Your task to perform on an android device: turn pop-ups on in chrome Image 0: 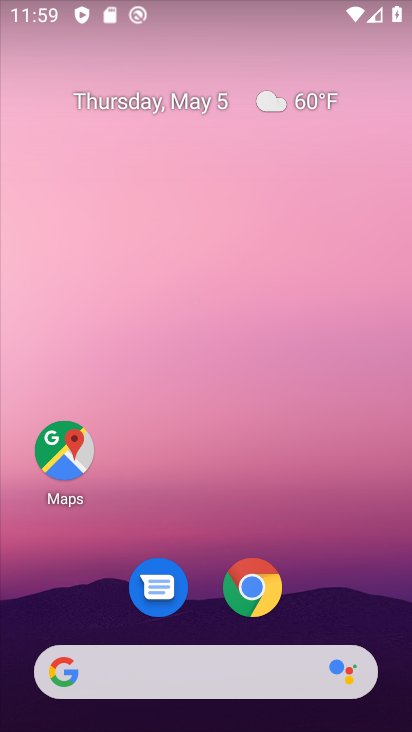
Step 0: click (263, 581)
Your task to perform on an android device: turn pop-ups on in chrome Image 1: 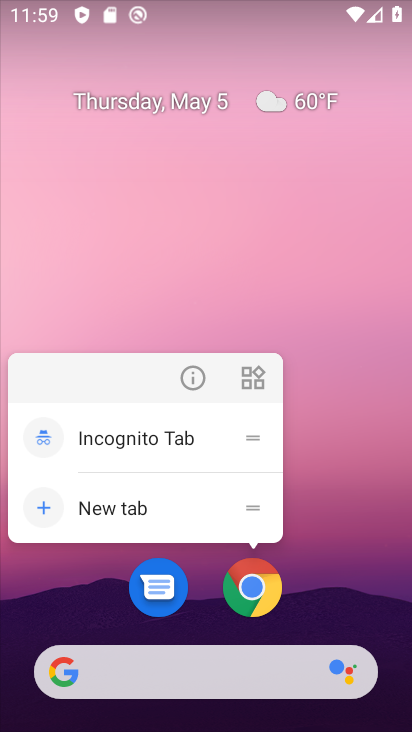
Step 1: click (247, 582)
Your task to perform on an android device: turn pop-ups on in chrome Image 2: 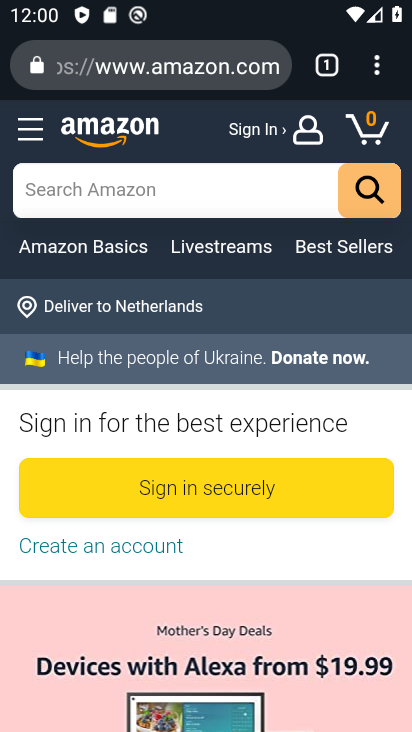
Step 2: click (367, 62)
Your task to perform on an android device: turn pop-ups on in chrome Image 3: 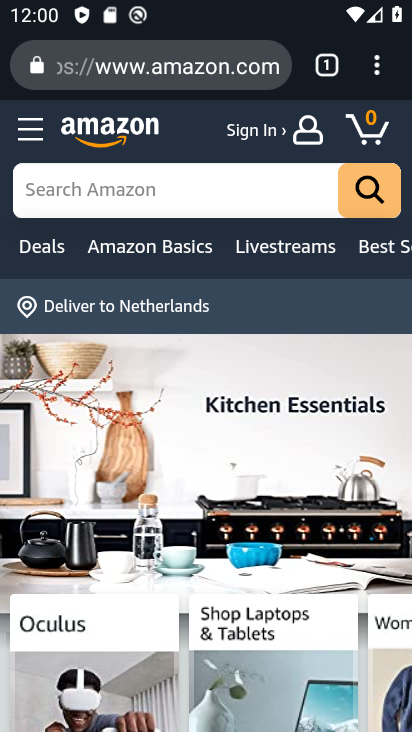
Step 3: click (373, 63)
Your task to perform on an android device: turn pop-ups on in chrome Image 4: 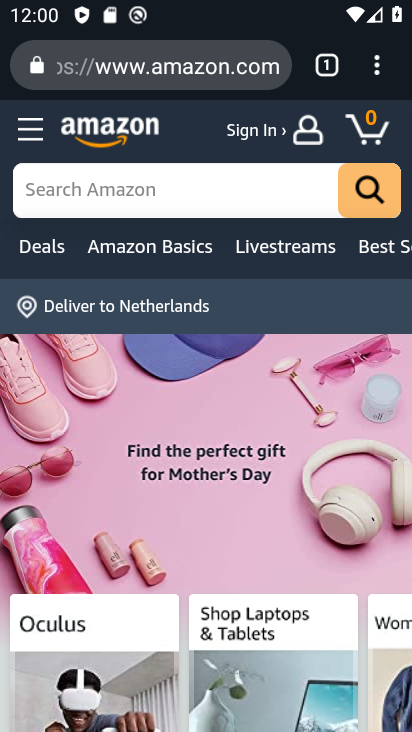
Step 4: click (376, 59)
Your task to perform on an android device: turn pop-ups on in chrome Image 5: 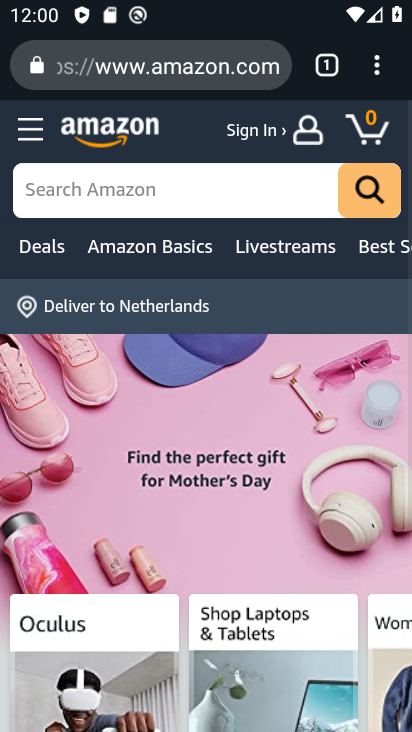
Step 5: click (376, 59)
Your task to perform on an android device: turn pop-ups on in chrome Image 6: 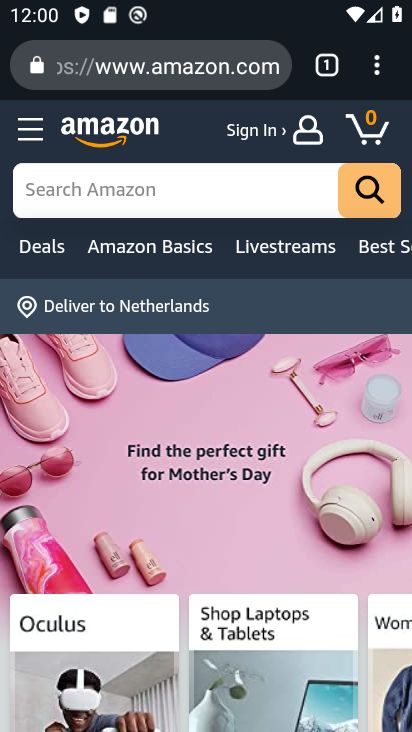
Step 6: click (376, 59)
Your task to perform on an android device: turn pop-ups on in chrome Image 7: 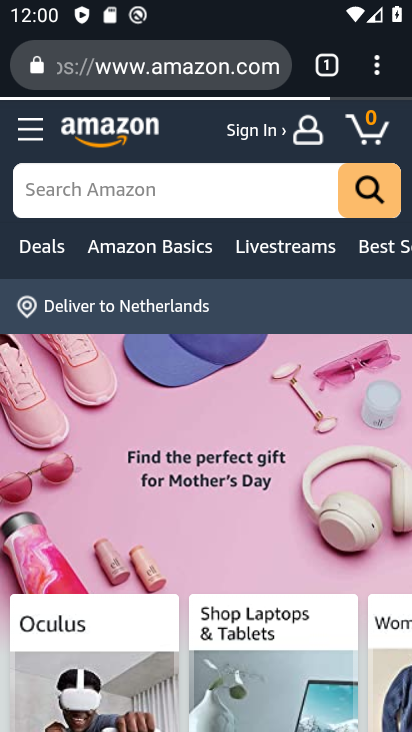
Step 7: click (376, 59)
Your task to perform on an android device: turn pop-ups on in chrome Image 8: 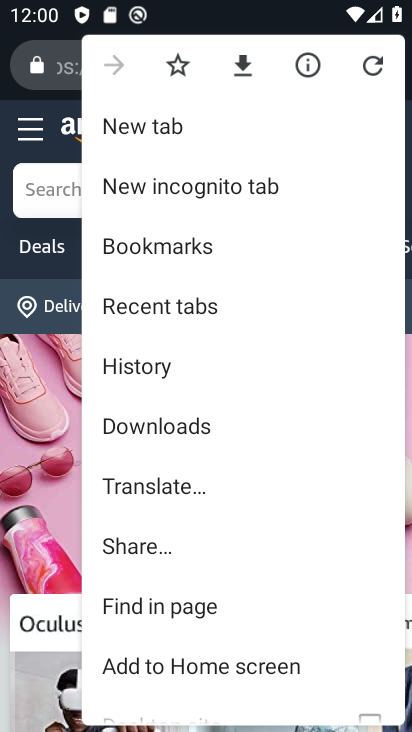
Step 8: drag from (339, 664) to (325, 303)
Your task to perform on an android device: turn pop-ups on in chrome Image 9: 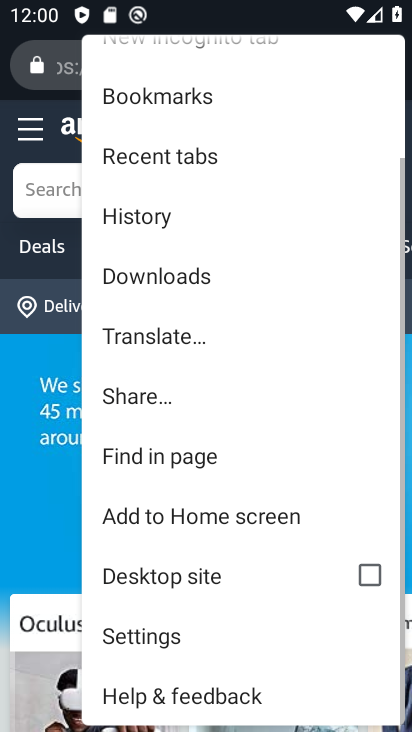
Step 9: click (154, 627)
Your task to perform on an android device: turn pop-ups on in chrome Image 10: 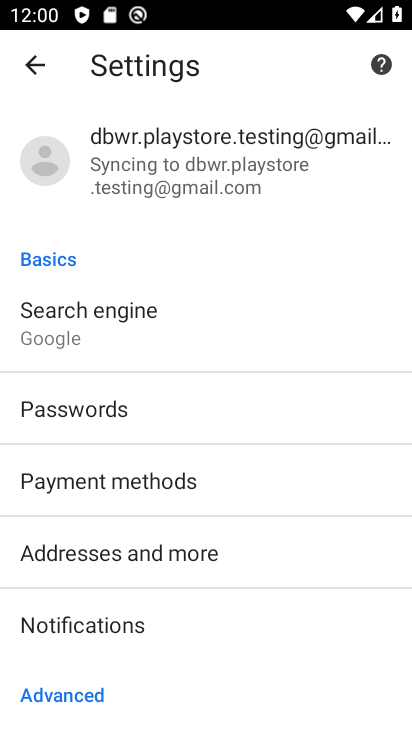
Step 10: drag from (268, 694) to (275, 354)
Your task to perform on an android device: turn pop-ups on in chrome Image 11: 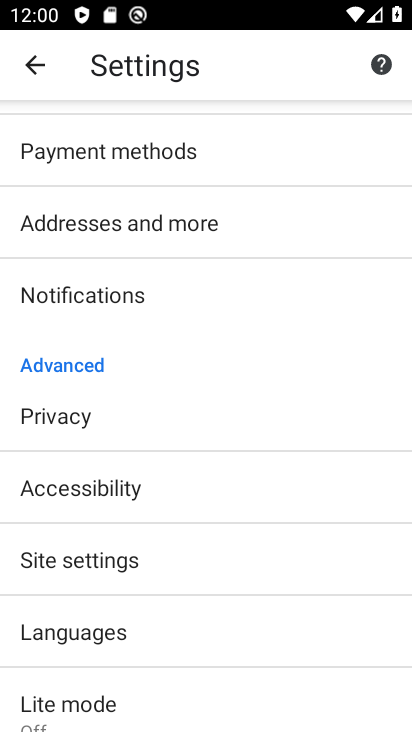
Step 11: drag from (291, 675) to (281, 448)
Your task to perform on an android device: turn pop-ups on in chrome Image 12: 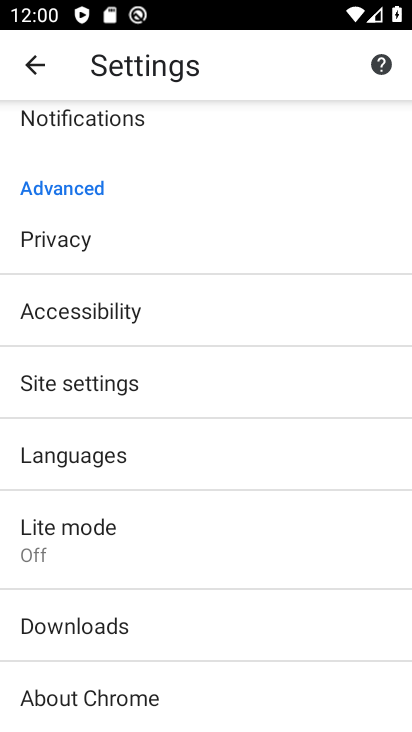
Step 12: click (53, 389)
Your task to perform on an android device: turn pop-ups on in chrome Image 13: 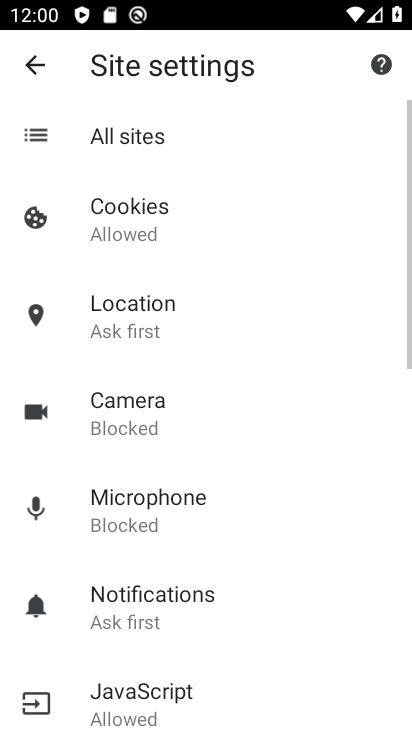
Step 13: drag from (276, 688) to (259, 317)
Your task to perform on an android device: turn pop-ups on in chrome Image 14: 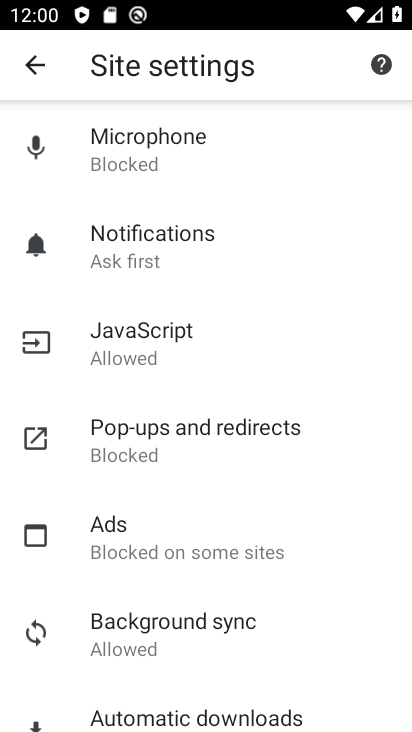
Step 14: click (136, 427)
Your task to perform on an android device: turn pop-ups on in chrome Image 15: 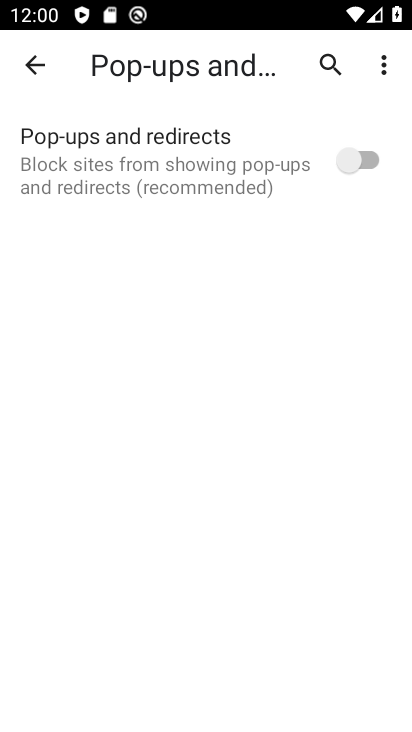
Step 15: click (357, 153)
Your task to perform on an android device: turn pop-ups on in chrome Image 16: 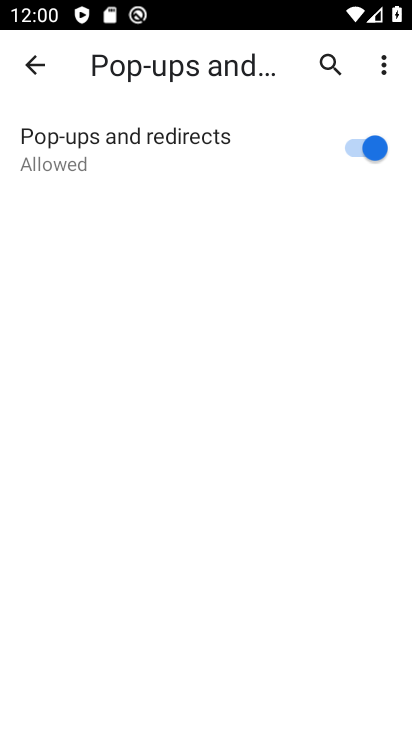
Step 16: task complete